Your task to perform on an android device: turn smart compose on in the gmail app Image 0: 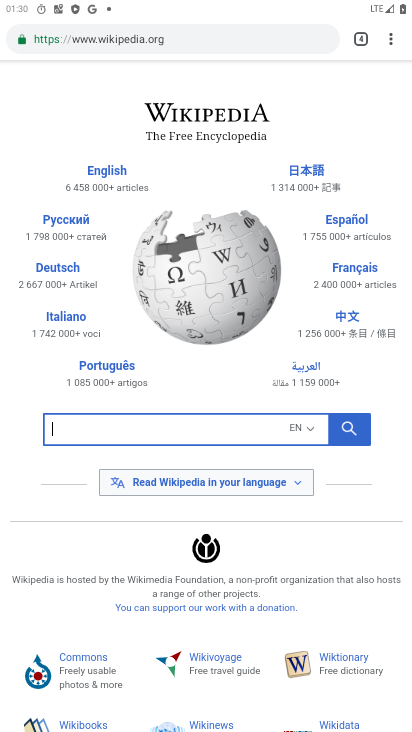
Step 0: press home button
Your task to perform on an android device: turn smart compose on in the gmail app Image 1: 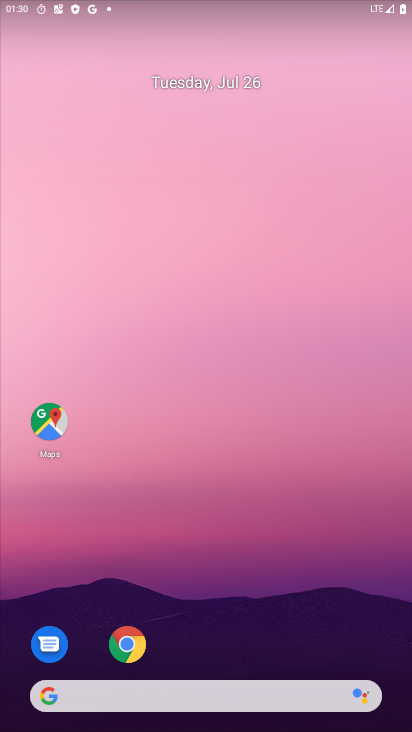
Step 1: drag from (269, 666) to (254, 61)
Your task to perform on an android device: turn smart compose on in the gmail app Image 2: 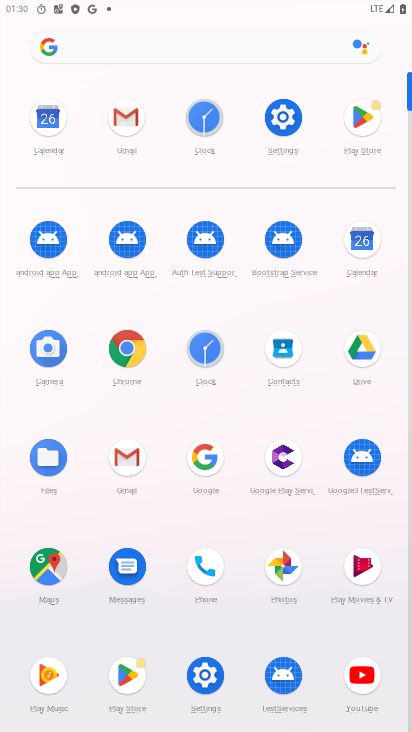
Step 2: click (128, 125)
Your task to perform on an android device: turn smart compose on in the gmail app Image 3: 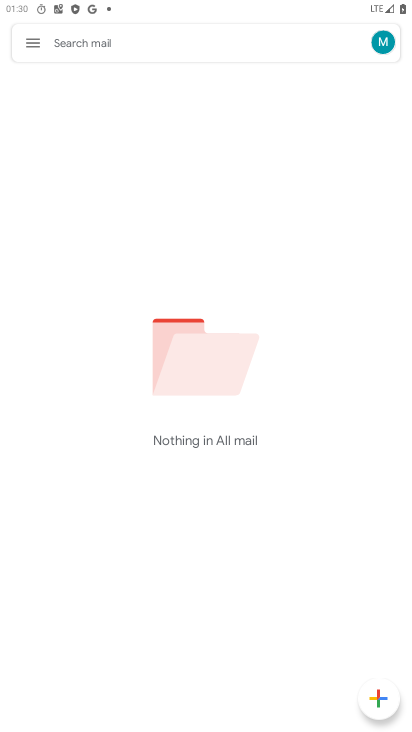
Step 3: click (37, 43)
Your task to perform on an android device: turn smart compose on in the gmail app Image 4: 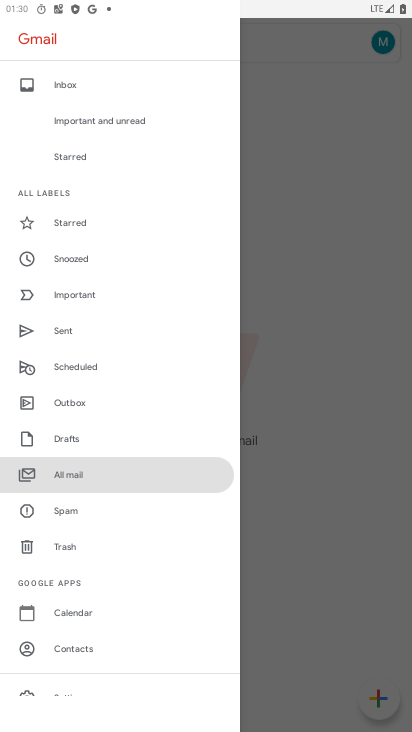
Step 4: drag from (116, 610) to (101, 393)
Your task to perform on an android device: turn smart compose on in the gmail app Image 5: 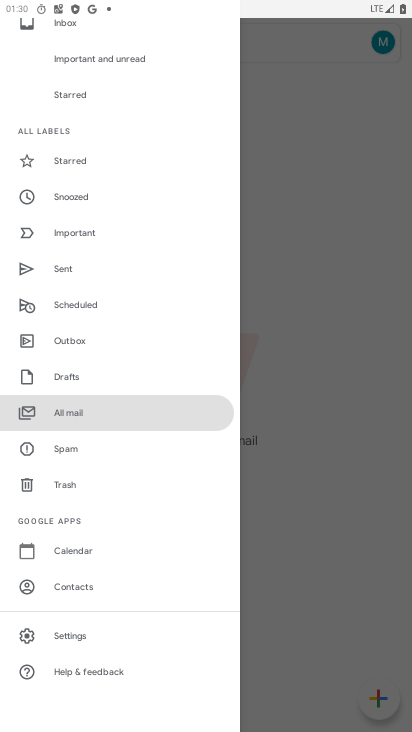
Step 5: click (60, 633)
Your task to perform on an android device: turn smart compose on in the gmail app Image 6: 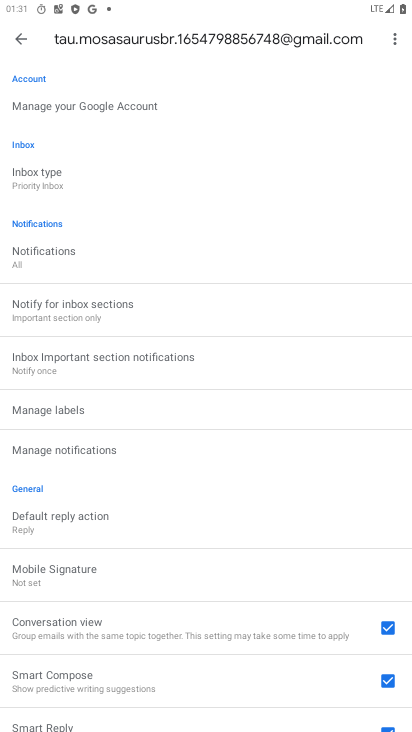
Step 6: task complete